Your task to perform on an android device: Is it going to rain today? Image 0: 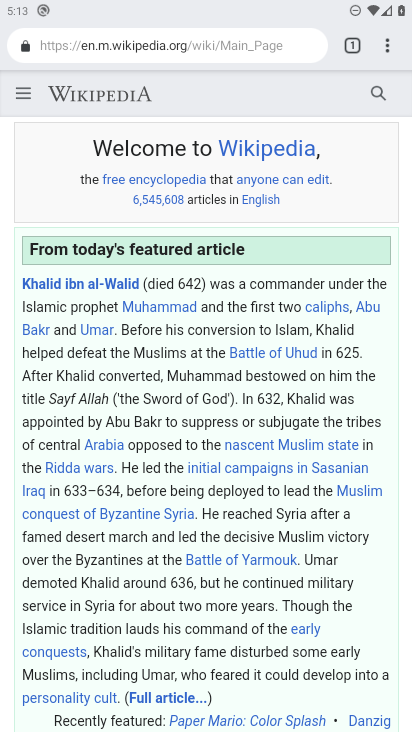
Step 0: press home button
Your task to perform on an android device: Is it going to rain today? Image 1: 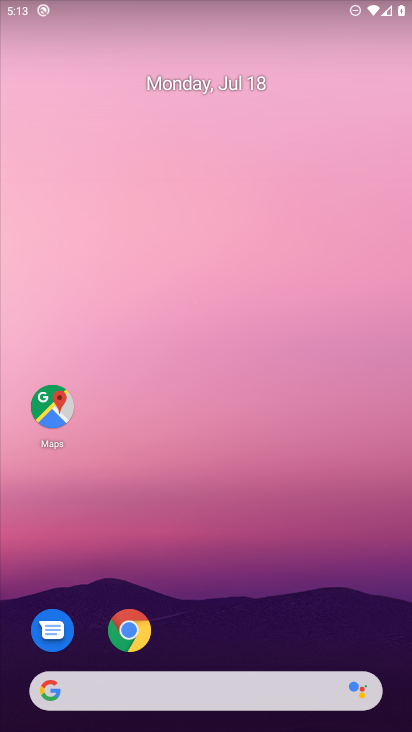
Step 1: drag from (213, 638) to (250, 295)
Your task to perform on an android device: Is it going to rain today? Image 2: 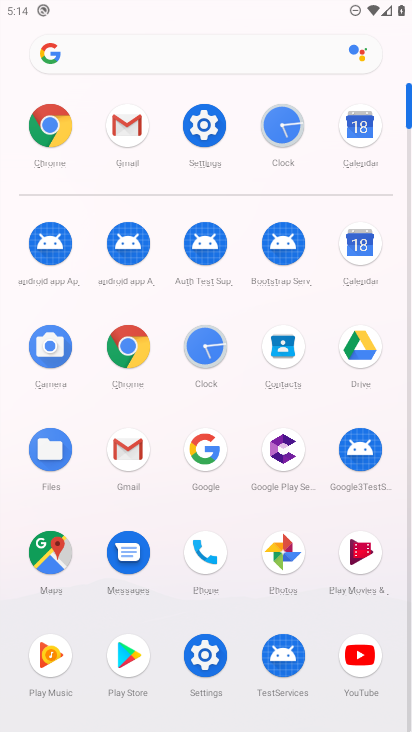
Step 2: press home button
Your task to perform on an android device: Is it going to rain today? Image 3: 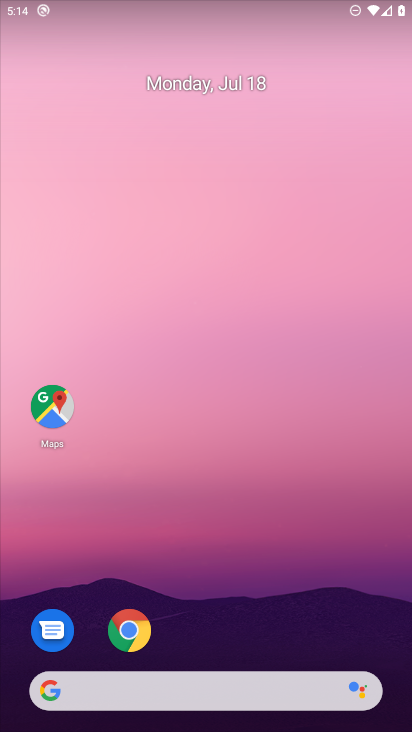
Step 3: drag from (18, 272) to (398, 326)
Your task to perform on an android device: Is it going to rain today? Image 4: 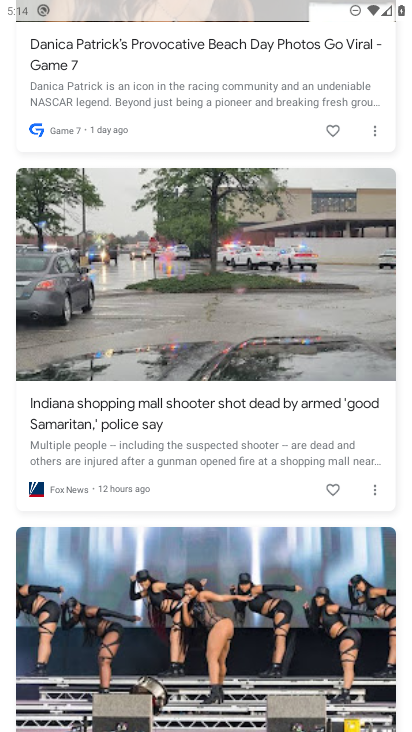
Step 4: drag from (160, 149) to (203, 642)
Your task to perform on an android device: Is it going to rain today? Image 5: 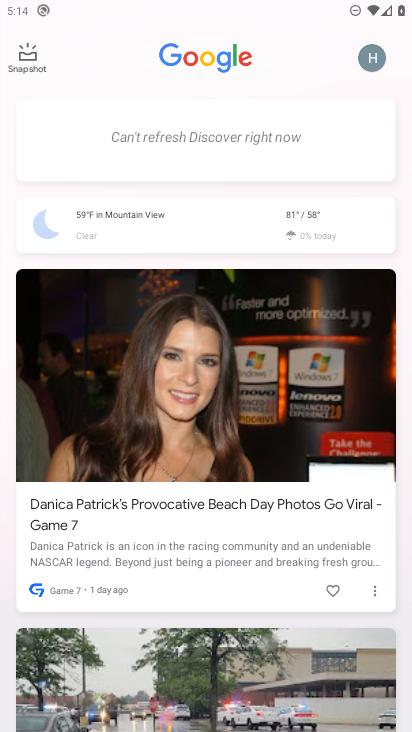
Step 5: click (299, 217)
Your task to perform on an android device: Is it going to rain today? Image 6: 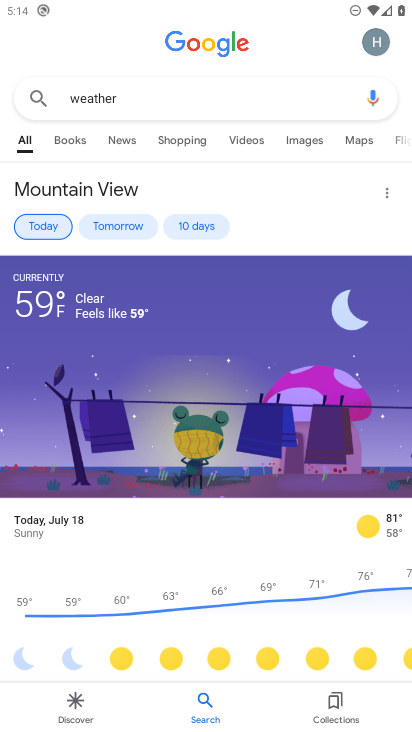
Step 6: task complete